Your task to perform on an android device: toggle priority inbox in the gmail app Image 0: 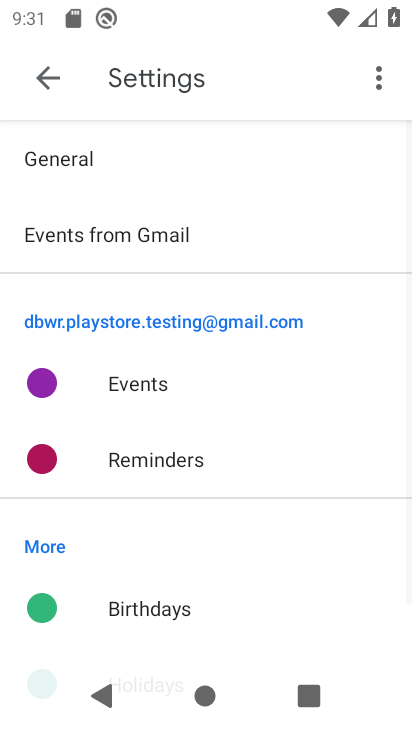
Step 0: press home button
Your task to perform on an android device: toggle priority inbox in the gmail app Image 1: 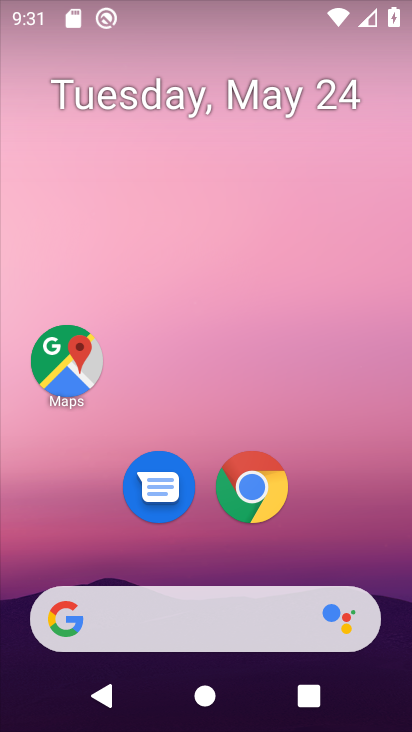
Step 1: drag from (146, 619) to (305, 133)
Your task to perform on an android device: toggle priority inbox in the gmail app Image 2: 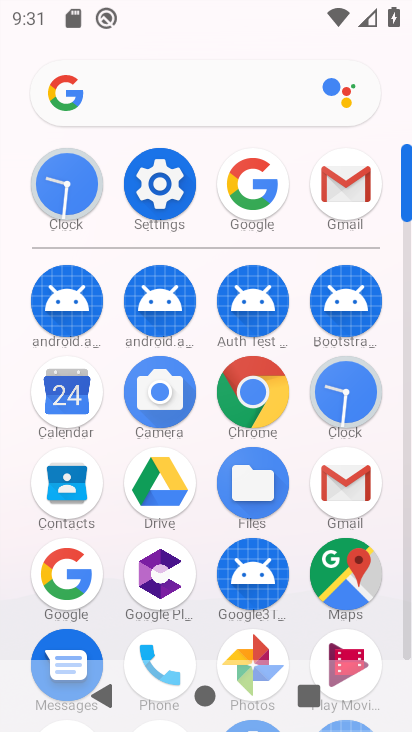
Step 2: click (351, 194)
Your task to perform on an android device: toggle priority inbox in the gmail app Image 3: 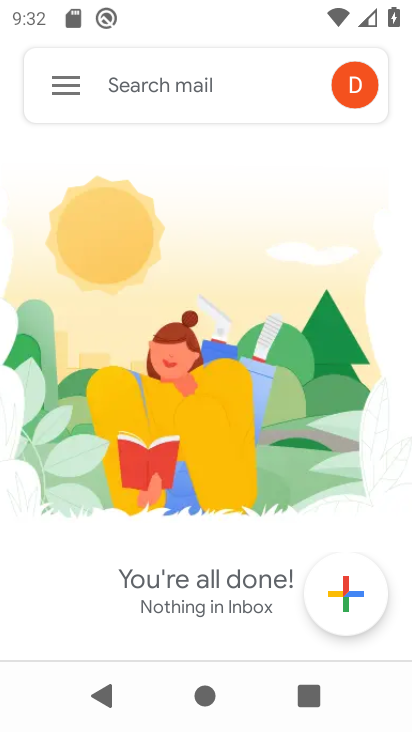
Step 3: click (69, 89)
Your task to perform on an android device: toggle priority inbox in the gmail app Image 4: 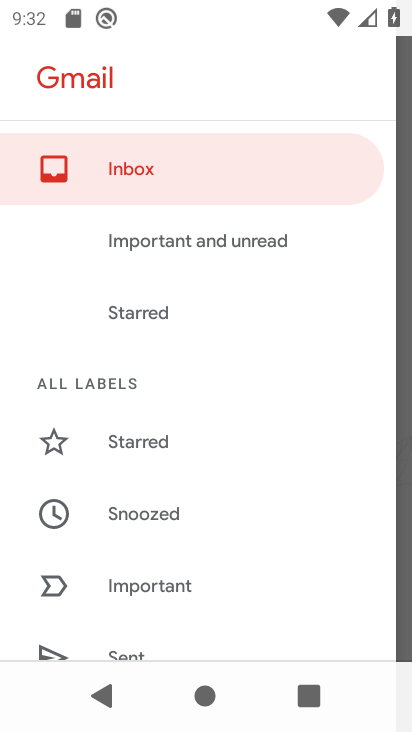
Step 4: drag from (235, 629) to (357, 66)
Your task to perform on an android device: toggle priority inbox in the gmail app Image 5: 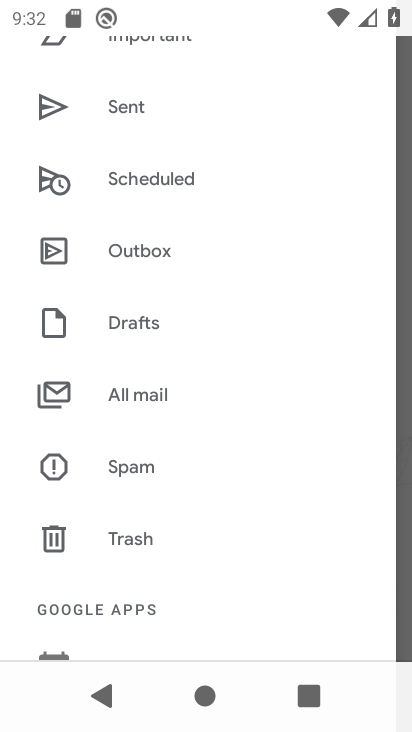
Step 5: drag from (250, 582) to (332, 184)
Your task to perform on an android device: toggle priority inbox in the gmail app Image 6: 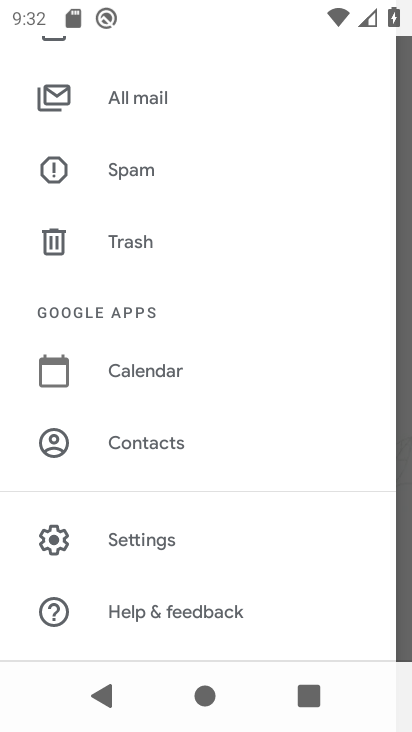
Step 6: click (154, 544)
Your task to perform on an android device: toggle priority inbox in the gmail app Image 7: 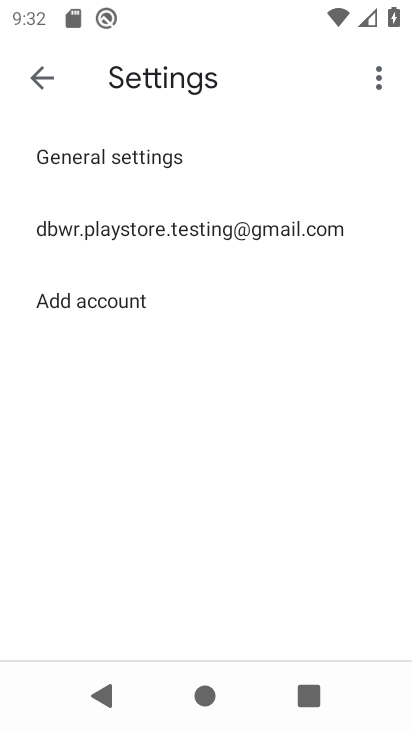
Step 7: click (248, 229)
Your task to perform on an android device: toggle priority inbox in the gmail app Image 8: 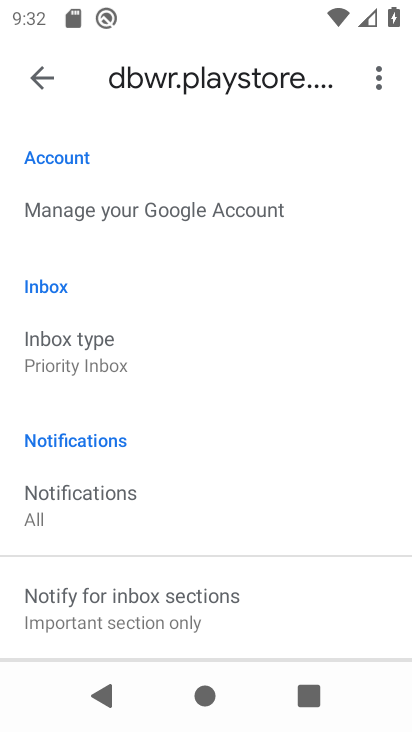
Step 8: click (91, 377)
Your task to perform on an android device: toggle priority inbox in the gmail app Image 9: 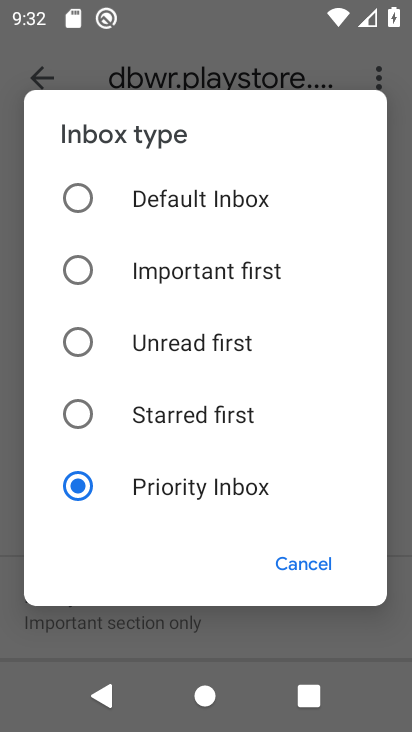
Step 9: click (68, 193)
Your task to perform on an android device: toggle priority inbox in the gmail app Image 10: 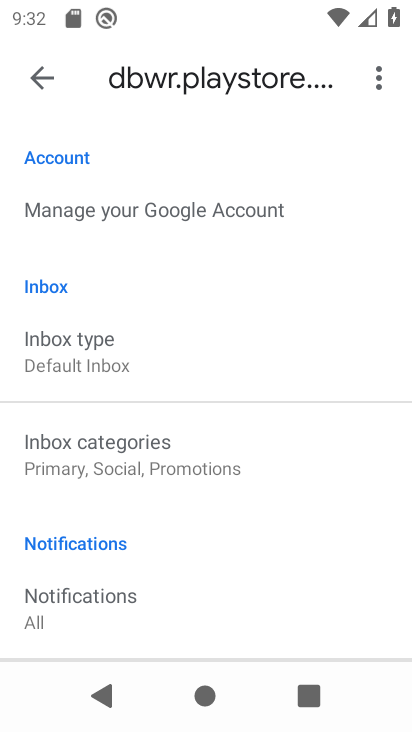
Step 10: task complete